Your task to perform on an android device: Go to display settings Image 0: 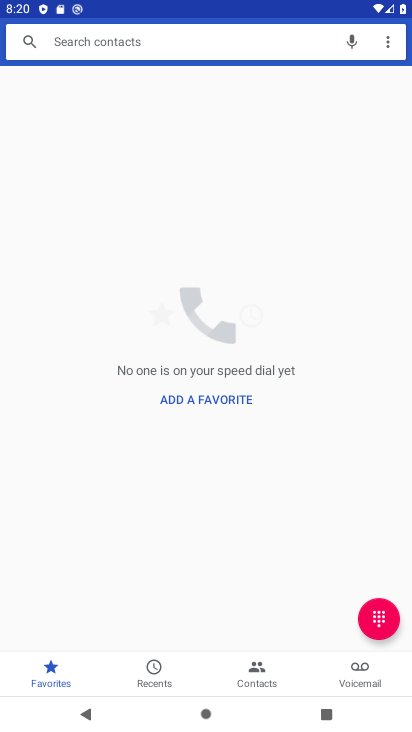
Step 0: press home button
Your task to perform on an android device: Go to display settings Image 1: 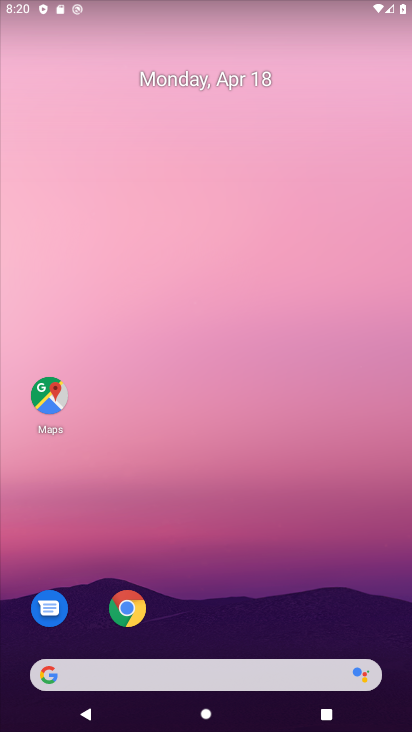
Step 1: drag from (226, 635) to (245, 171)
Your task to perform on an android device: Go to display settings Image 2: 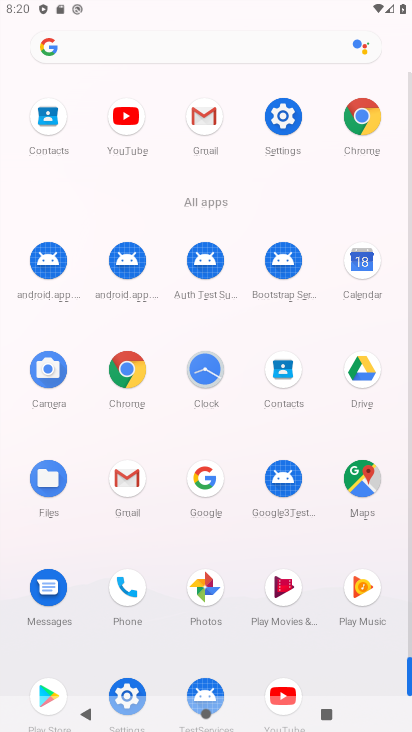
Step 2: click (283, 113)
Your task to perform on an android device: Go to display settings Image 3: 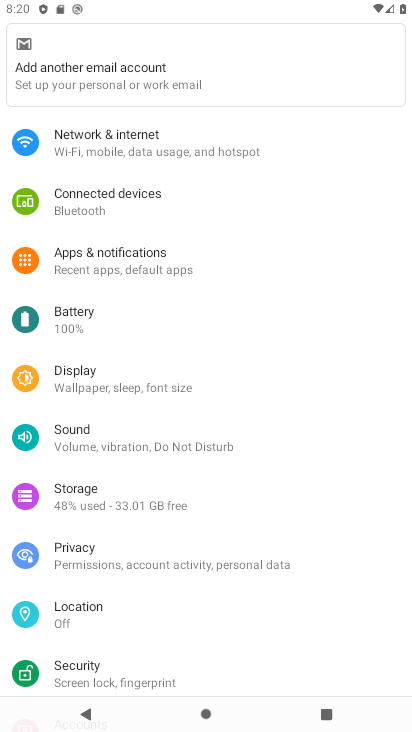
Step 3: click (135, 387)
Your task to perform on an android device: Go to display settings Image 4: 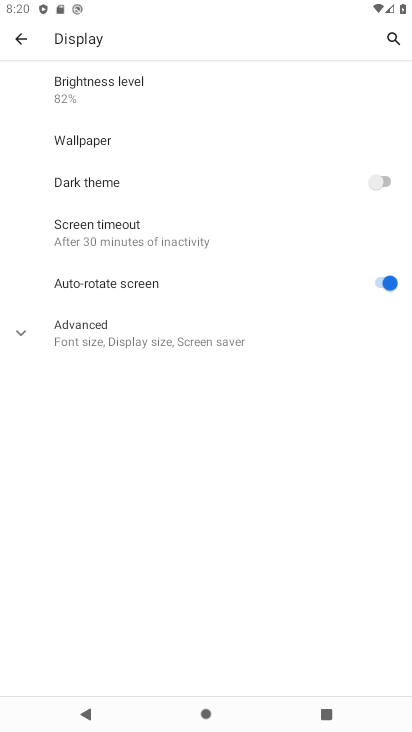
Step 4: task complete